Your task to perform on an android device: move an email to a new category in the gmail app Image 0: 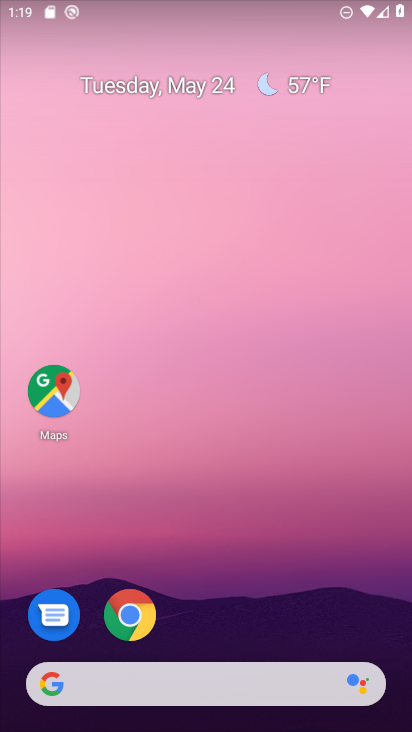
Step 0: press home button
Your task to perform on an android device: move an email to a new category in the gmail app Image 1: 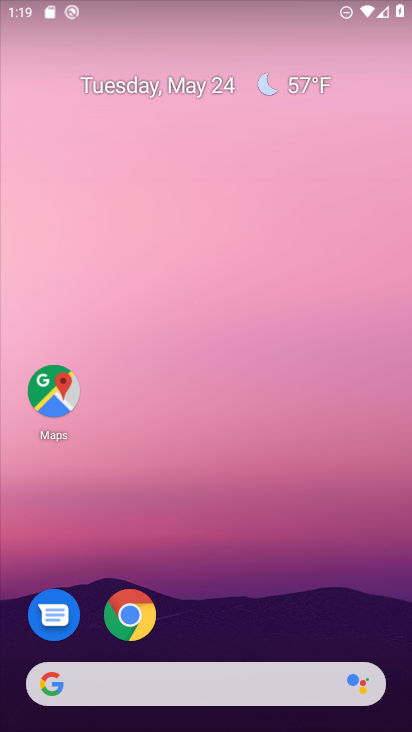
Step 1: drag from (155, 661) to (173, 130)
Your task to perform on an android device: move an email to a new category in the gmail app Image 2: 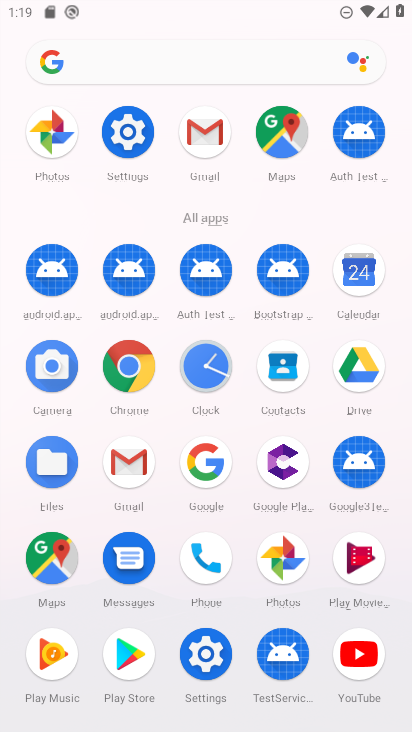
Step 2: click (129, 451)
Your task to perform on an android device: move an email to a new category in the gmail app Image 3: 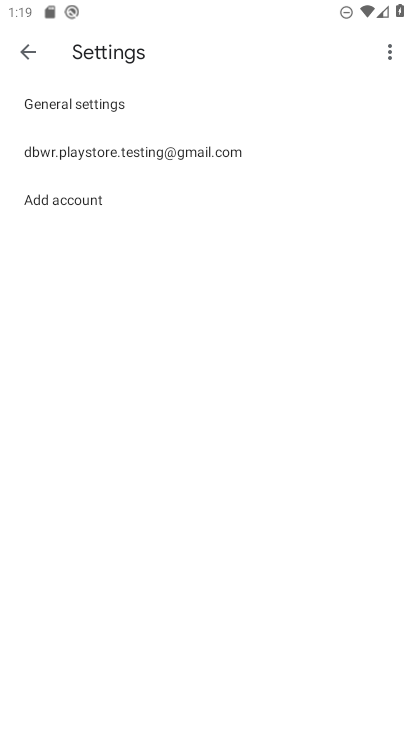
Step 3: click (33, 44)
Your task to perform on an android device: move an email to a new category in the gmail app Image 4: 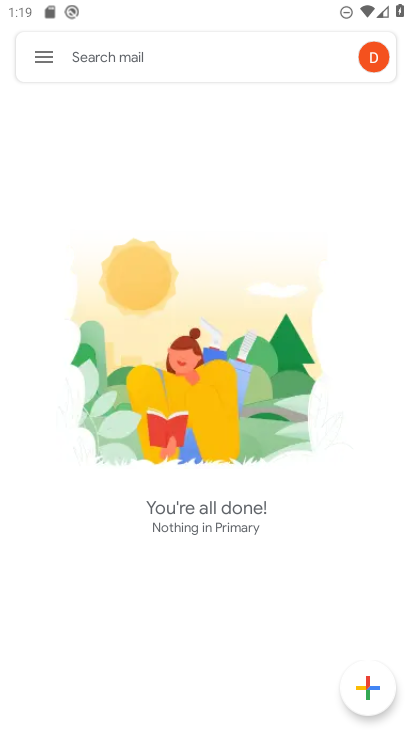
Step 4: task complete